Your task to perform on an android device: move an email to a new category in the gmail app Image 0: 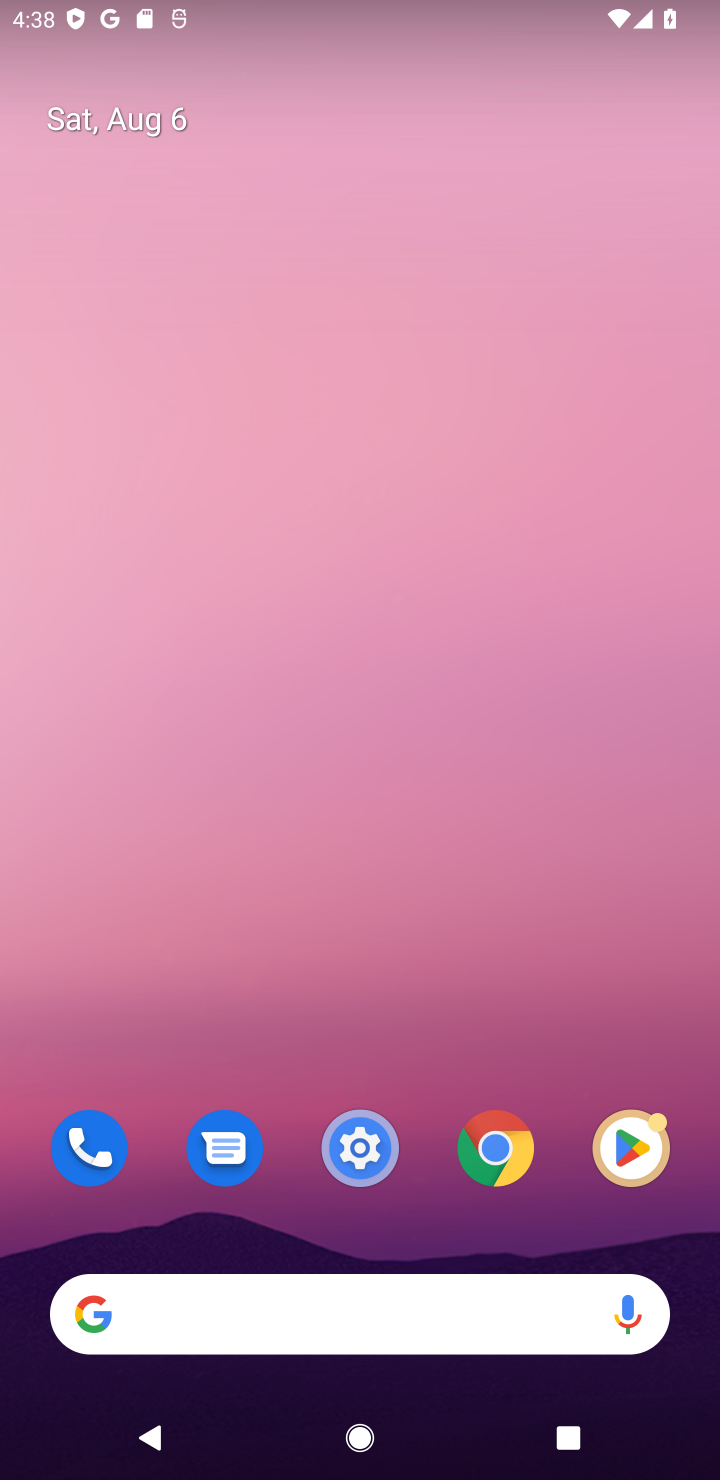
Step 0: drag from (382, 1230) to (286, 175)
Your task to perform on an android device: move an email to a new category in the gmail app Image 1: 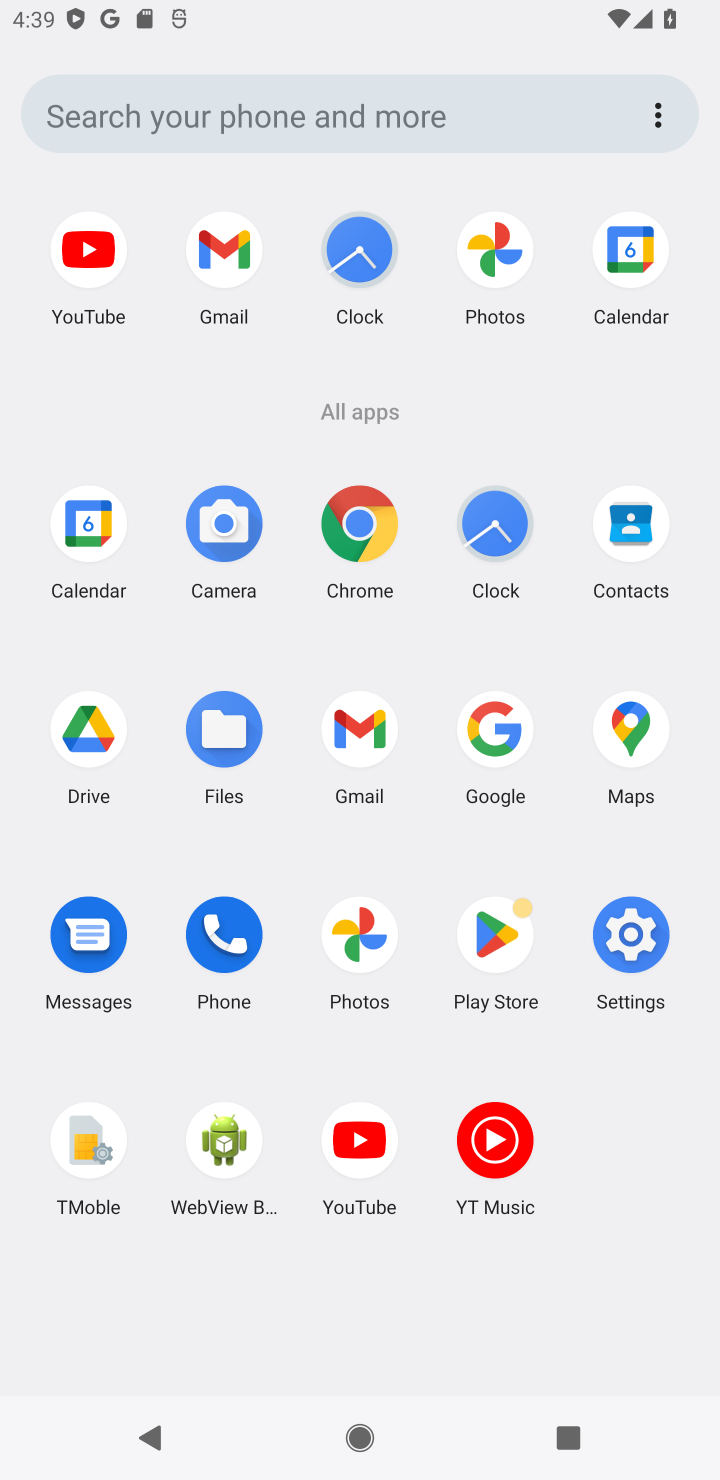
Step 1: click (358, 744)
Your task to perform on an android device: move an email to a new category in the gmail app Image 2: 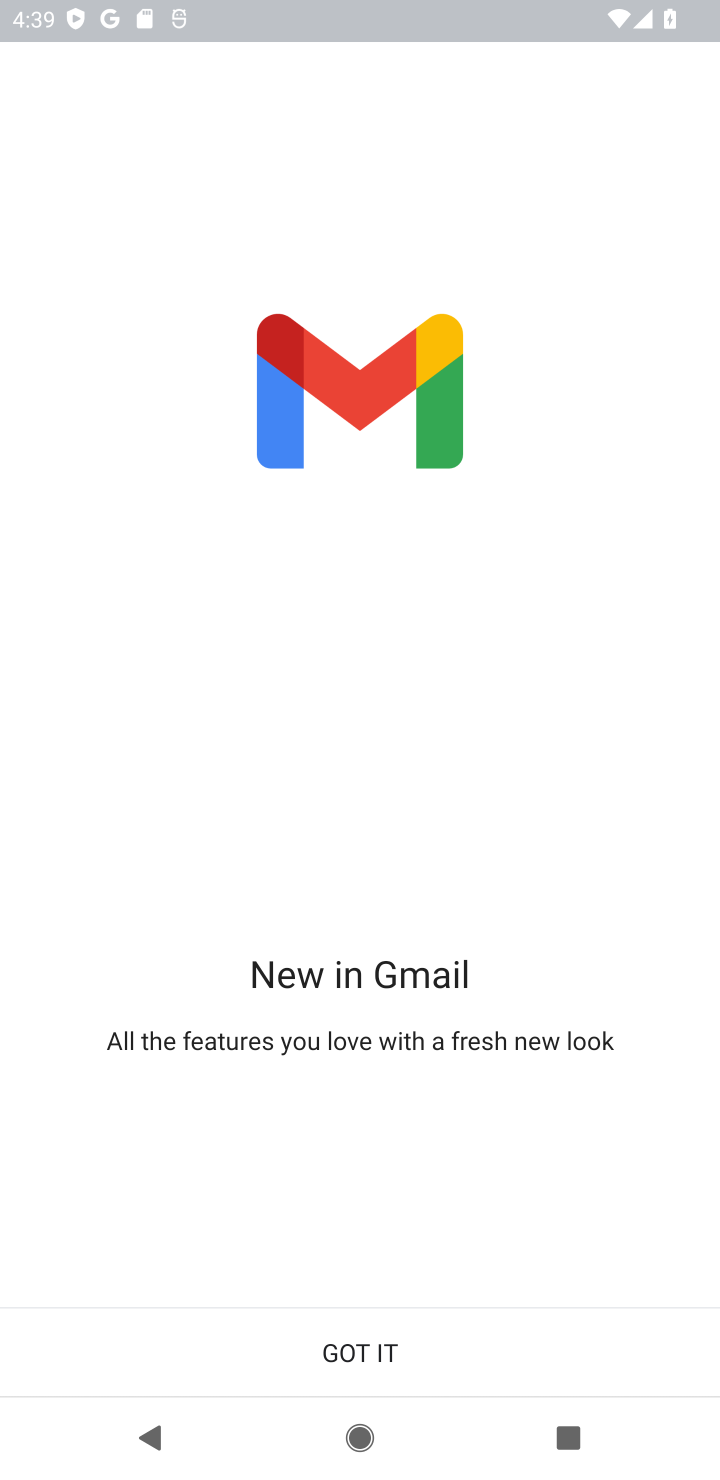
Step 2: click (321, 1315)
Your task to perform on an android device: move an email to a new category in the gmail app Image 3: 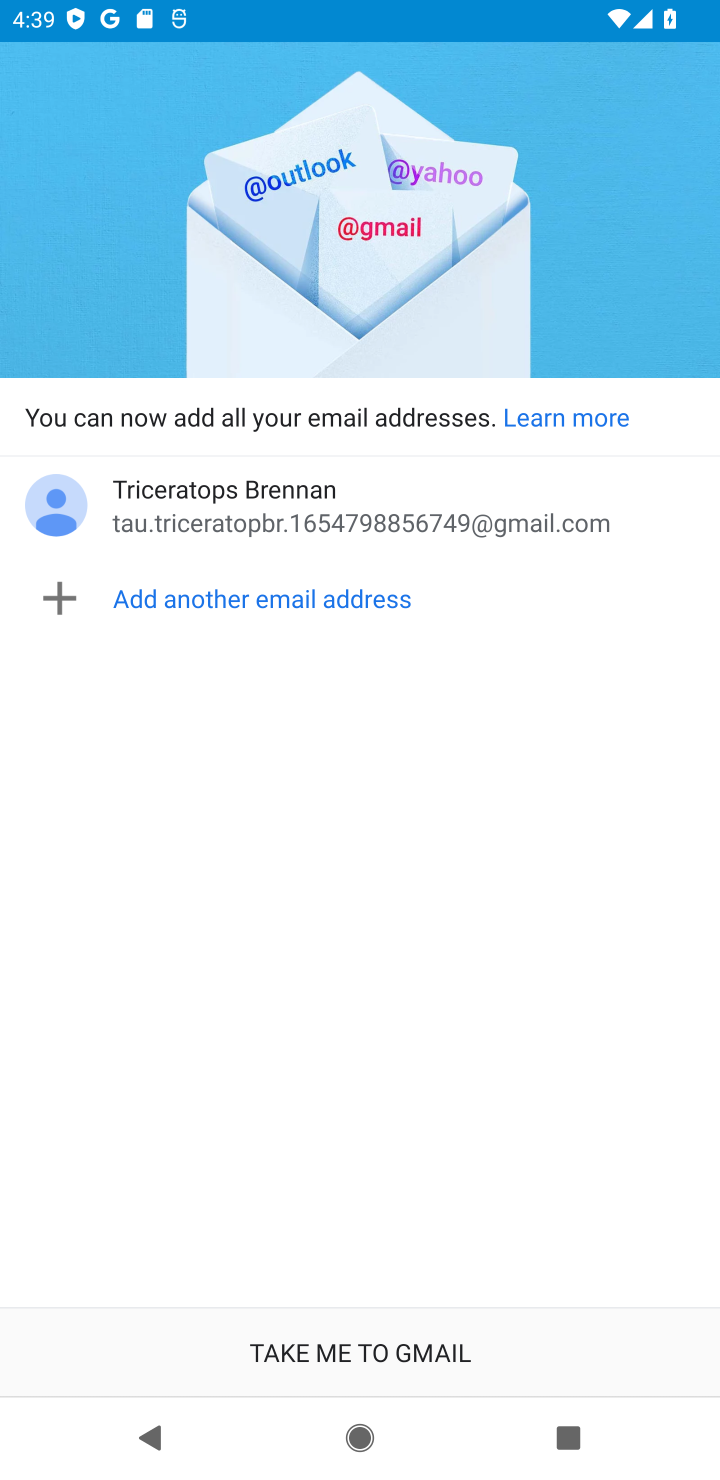
Step 3: click (321, 1315)
Your task to perform on an android device: move an email to a new category in the gmail app Image 4: 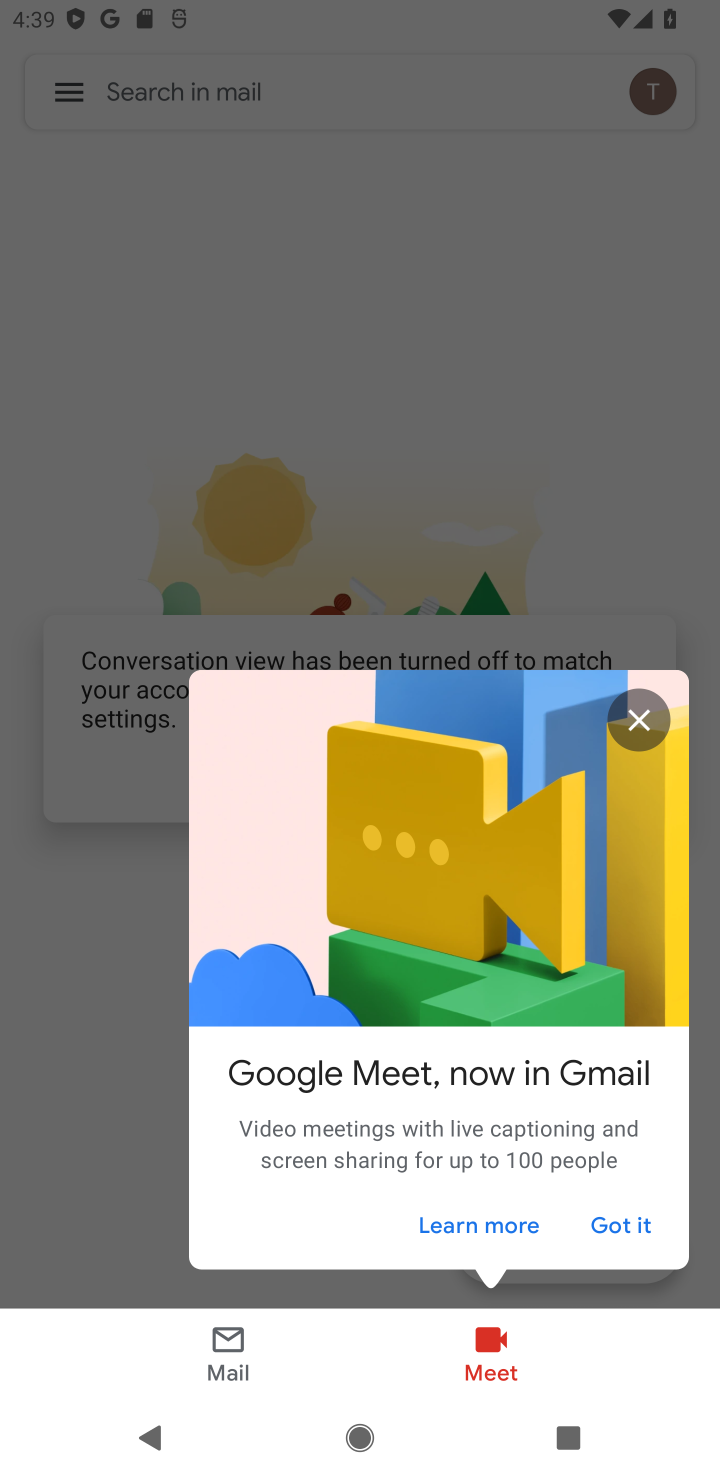
Step 4: click (605, 1210)
Your task to perform on an android device: move an email to a new category in the gmail app Image 5: 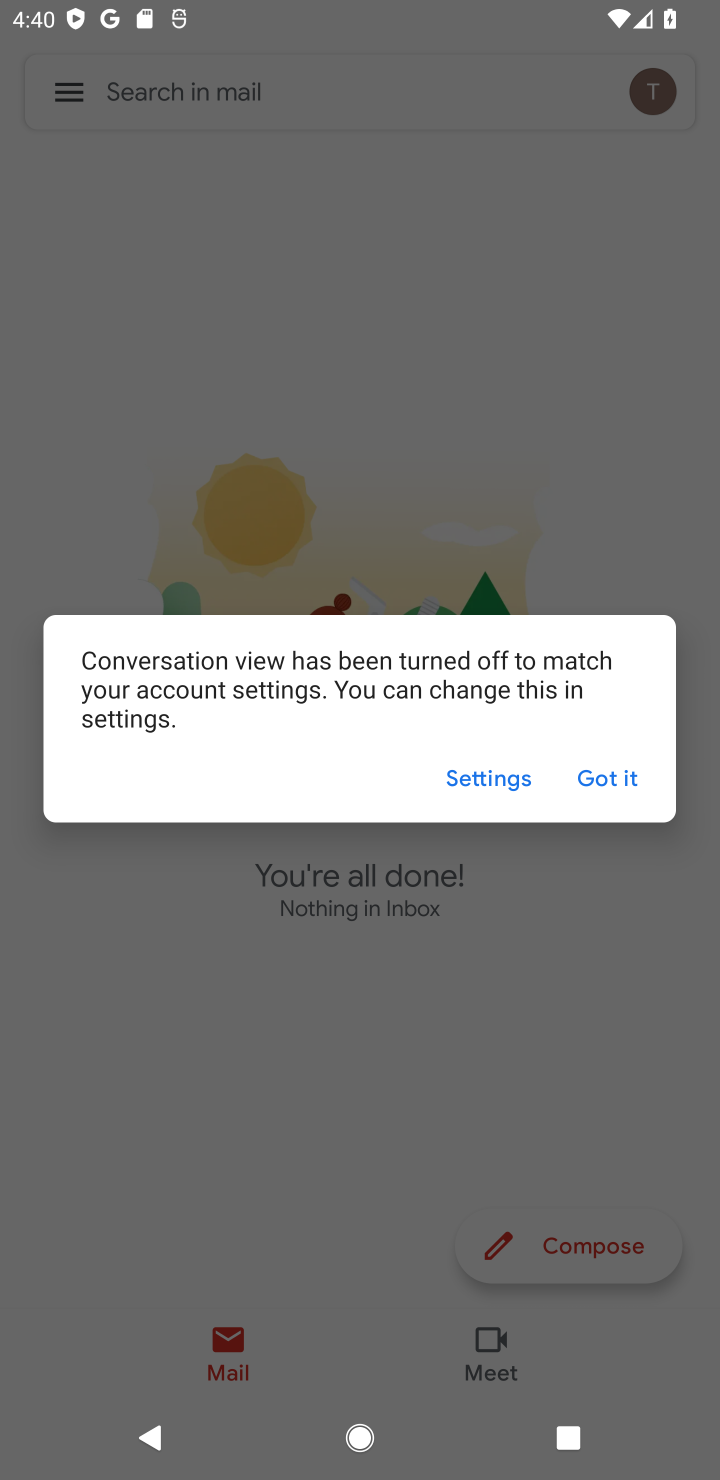
Step 5: click (590, 762)
Your task to perform on an android device: move an email to a new category in the gmail app Image 6: 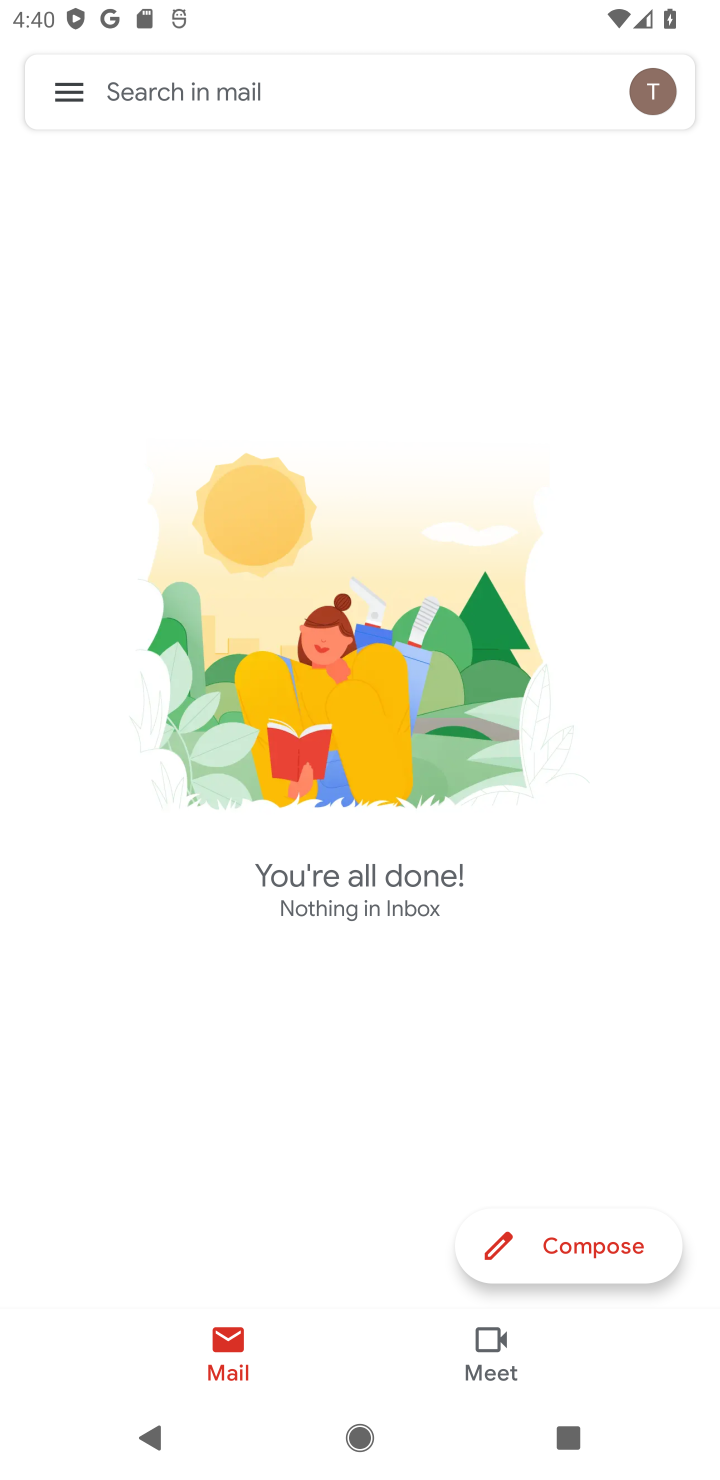
Step 6: task complete